Your task to perform on an android device: turn on improve location accuracy Image 0: 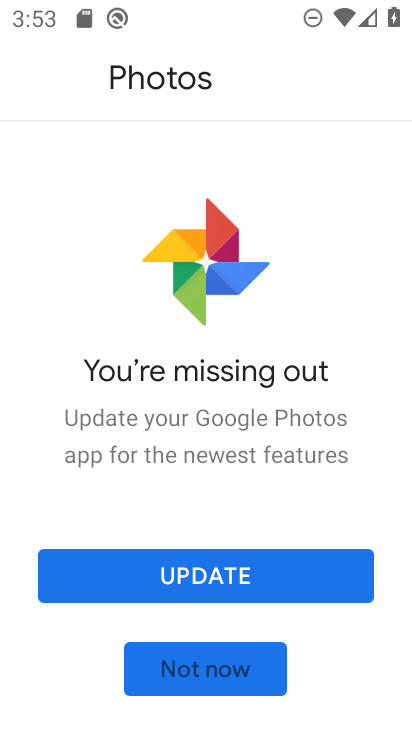
Step 0: press back button
Your task to perform on an android device: turn on improve location accuracy Image 1: 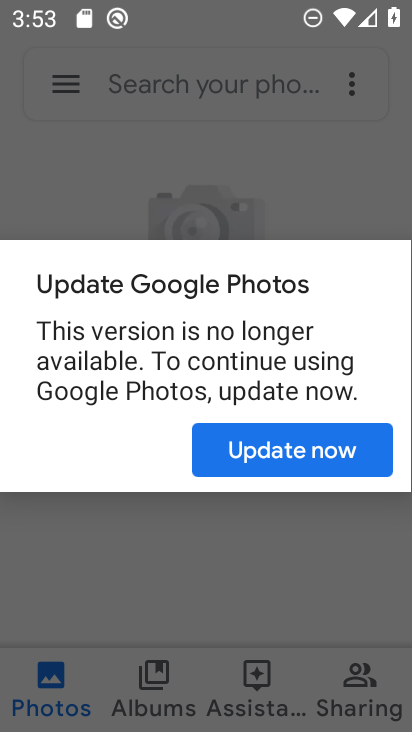
Step 1: press back button
Your task to perform on an android device: turn on improve location accuracy Image 2: 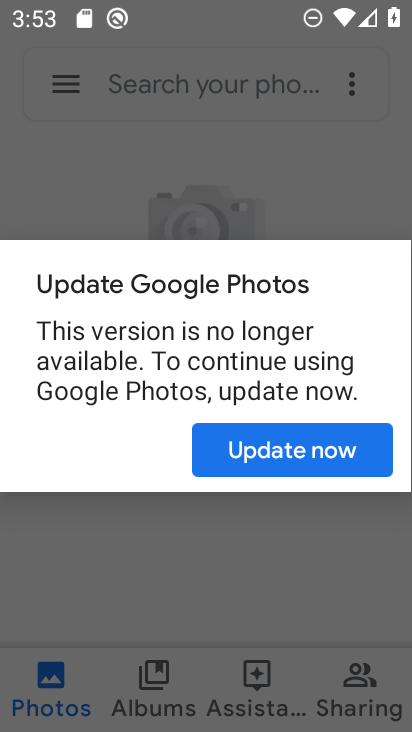
Step 2: press home button
Your task to perform on an android device: turn on improve location accuracy Image 3: 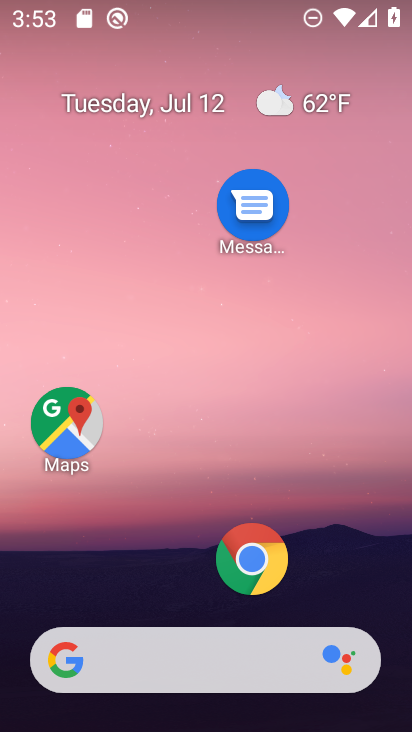
Step 3: drag from (160, 602) to (257, 20)
Your task to perform on an android device: turn on improve location accuracy Image 4: 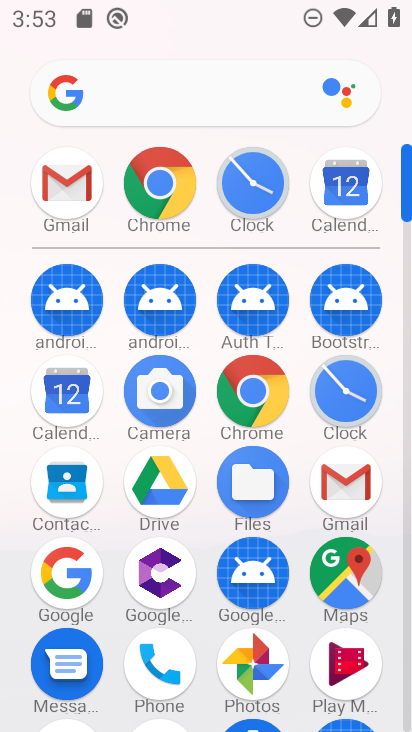
Step 4: drag from (118, 616) to (291, 4)
Your task to perform on an android device: turn on improve location accuracy Image 5: 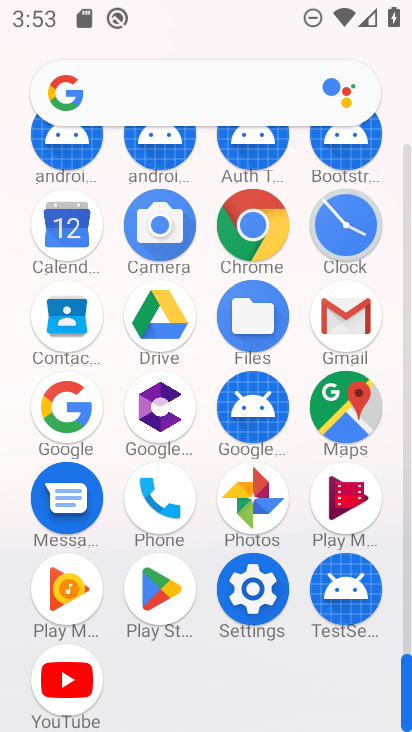
Step 5: click (239, 598)
Your task to perform on an android device: turn on improve location accuracy Image 6: 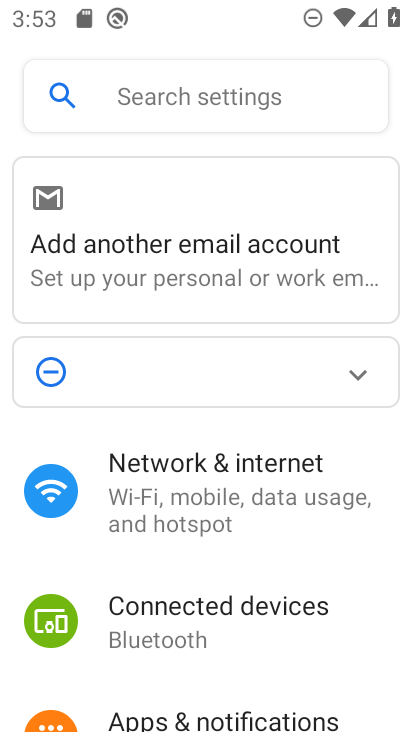
Step 6: drag from (210, 663) to (326, 26)
Your task to perform on an android device: turn on improve location accuracy Image 7: 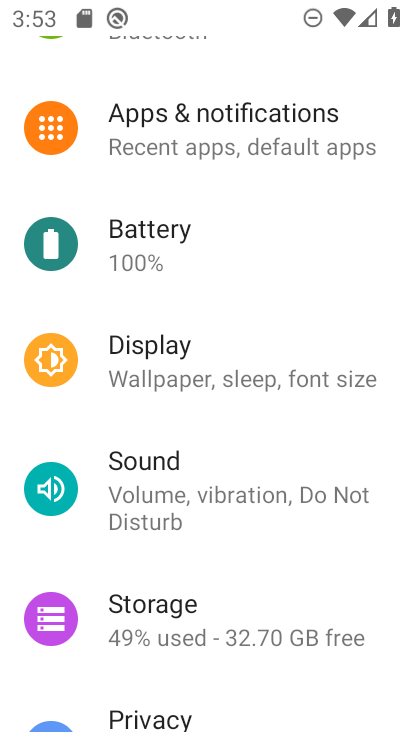
Step 7: drag from (154, 681) to (243, 152)
Your task to perform on an android device: turn on improve location accuracy Image 8: 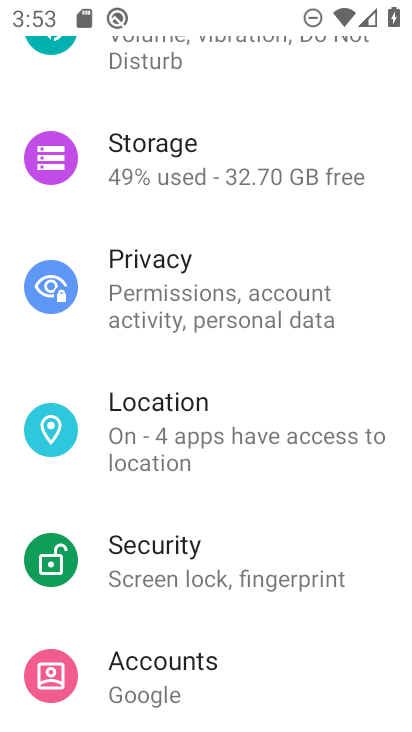
Step 8: click (190, 433)
Your task to perform on an android device: turn on improve location accuracy Image 9: 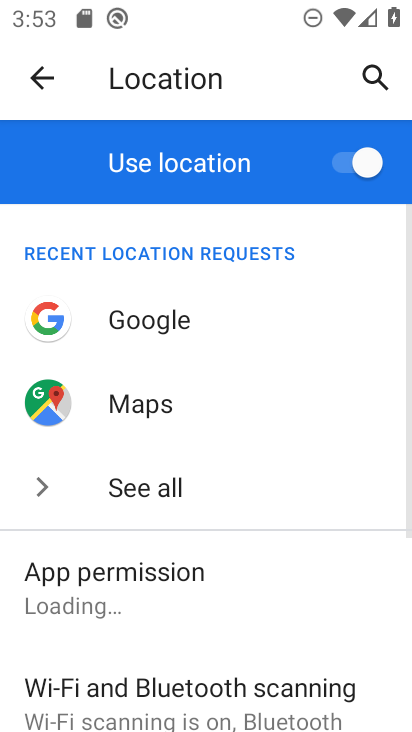
Step 9: drag from (132, 698) to (228, 82)
Your task to perform on an android device: turn on improve location accuracy Image 10: 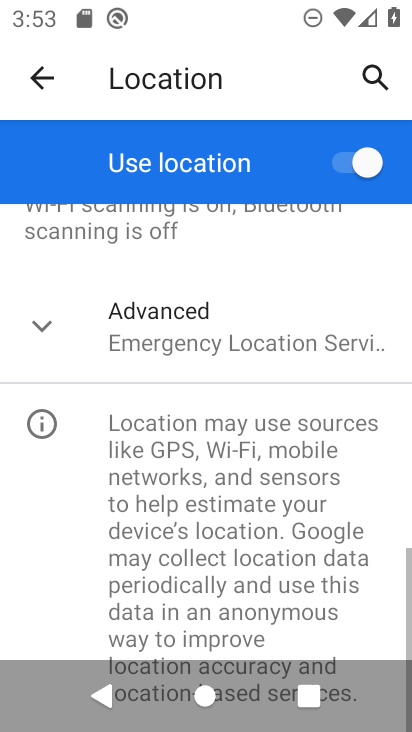
Step 10: click (175, 330)
Your task to perform on an android device: turn on improve location accuracy Image 11: 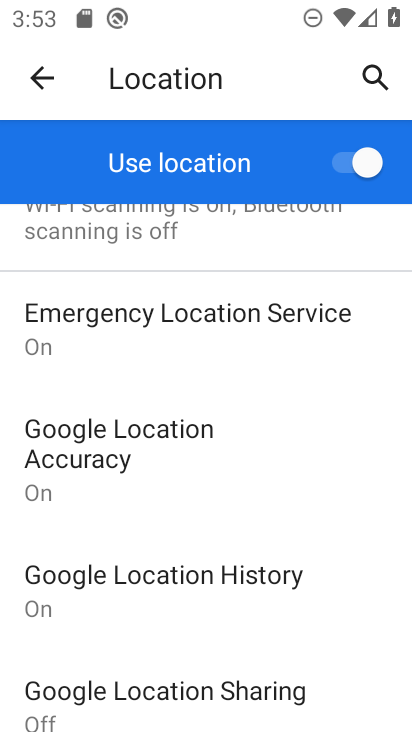
Step 11: click (94, 448)
Your task to perform on an android device: turn on improve location accuracy Image 12: 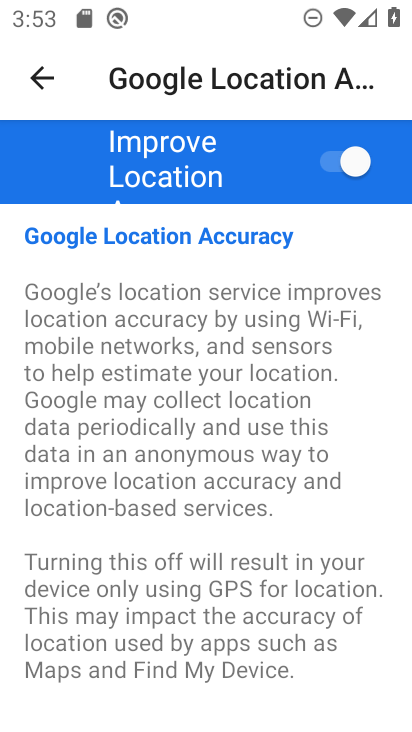
Step 12: task complete